Your task to perform on an android device: change timer sound Image 0: 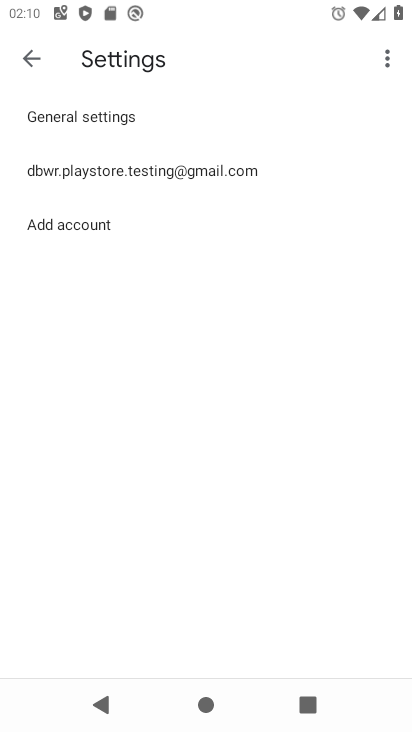
Step 0: press home button
Your task to perform on an android device: change timer sound Image 1: 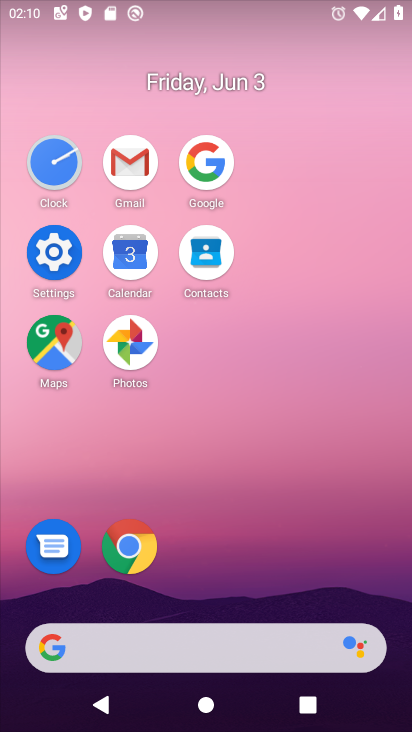
Step 1: click (58, 143)
Your task to perform on an android device: change timer sound Image 2: 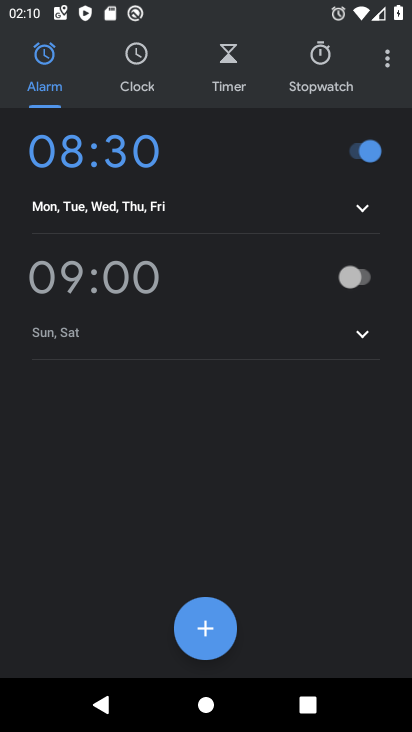
Step 2: click (373, 60)
Your task to perform on an android device: change timer sound Image 3: 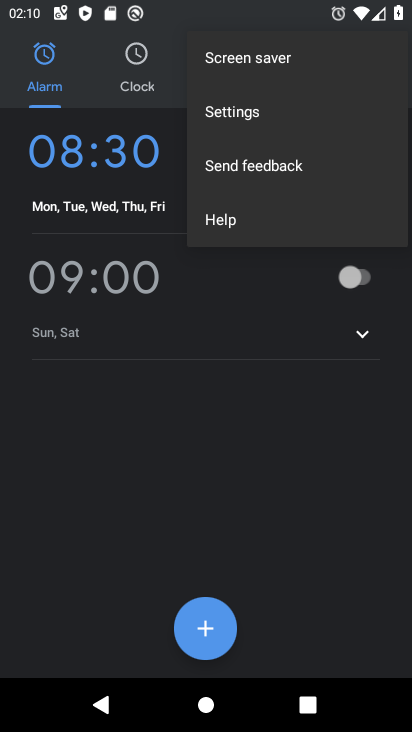
Step 3: click (282, 120)
Your task to perform on an android device: change timer sound Image 4: 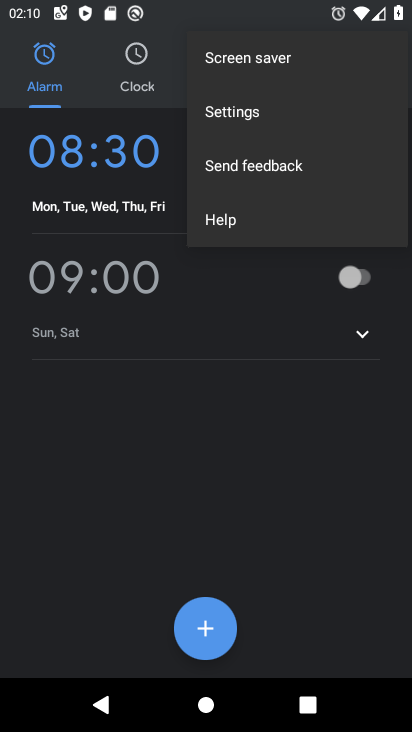
Step 4: click (255, 117)
Your task to perform on an android device: change timer sound Image 5: 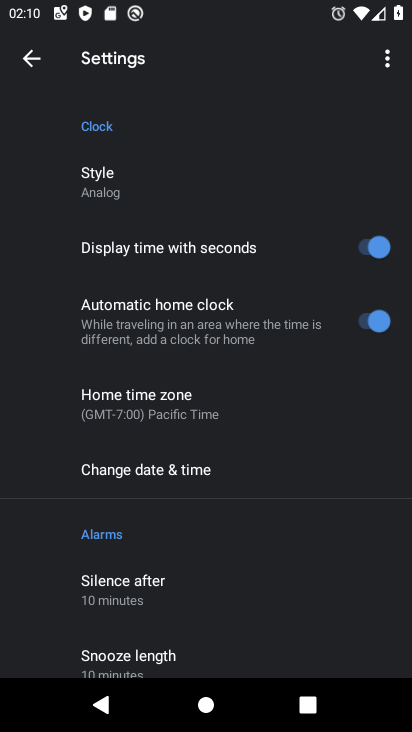
Step 5: drag from (241, 495) to (297, 190)
Your task to perform on an android device: change timer sound Image 6: 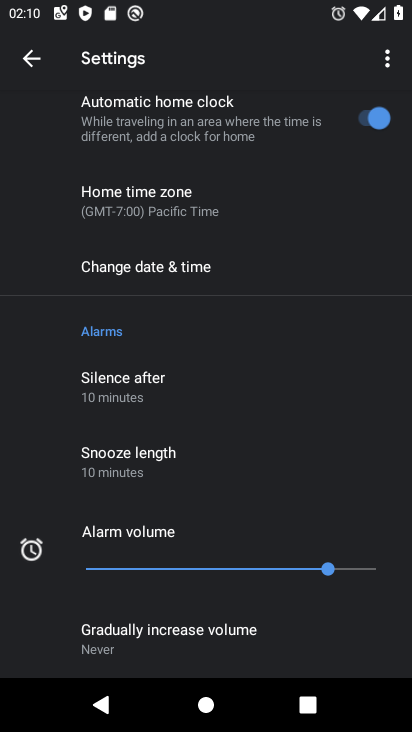
Step 6: drag from (198, 588) to (233, 213)
Your task to perform on an android device: change timer sound Image 7: 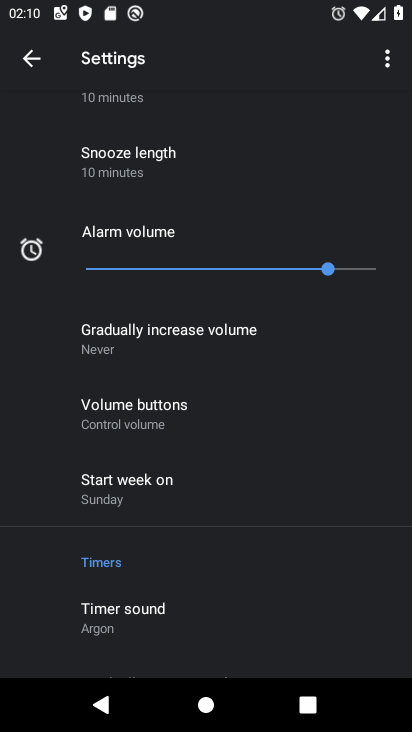
Step 7: click (192, 621)
Your task to perform on an android device: change timer sound Image 8: 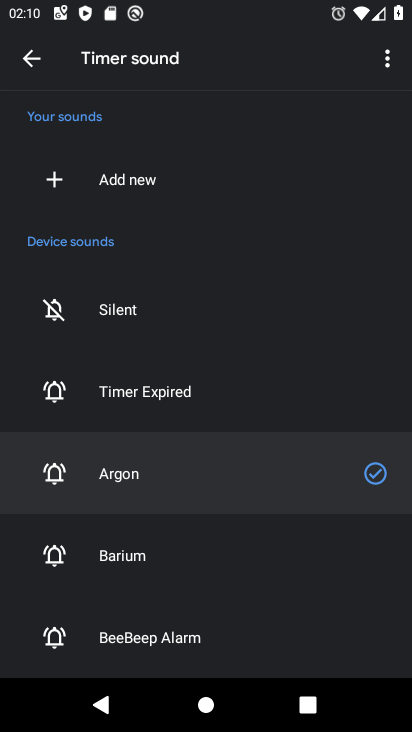
Step 8: click (197, 390)
Your task to perform on an android device: change timer sound Image 9: 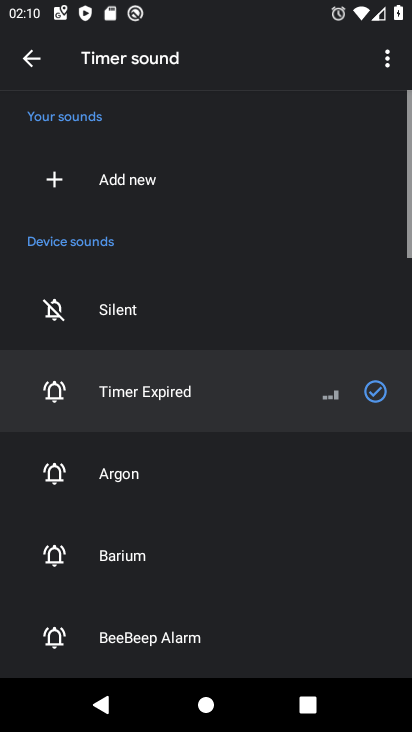
Step 9: task complete